Your task to perform on an android device: Open notification settings Image 0: 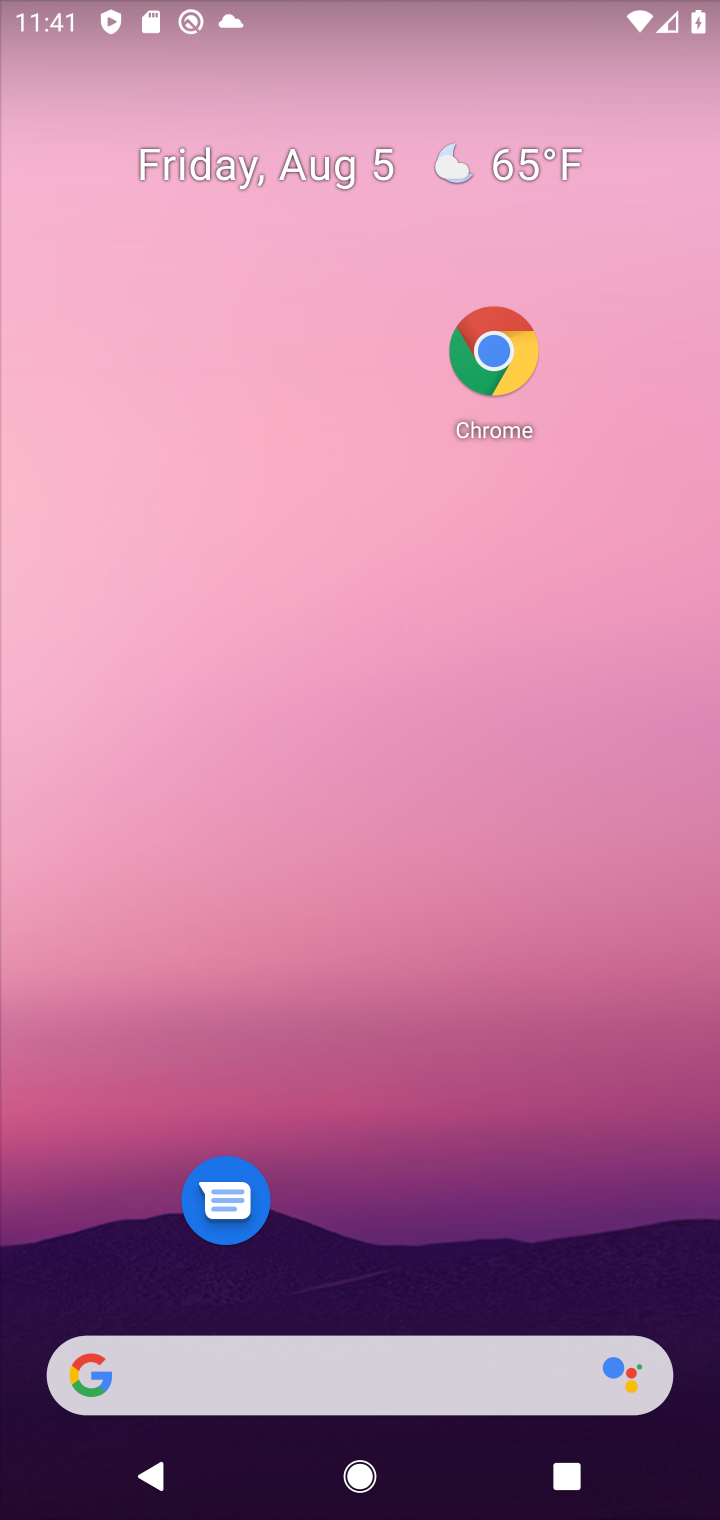
Step 0: drag from (460, 1422) to (423, 294)
Your task to perform on an android device: Open notification settings Image 1: 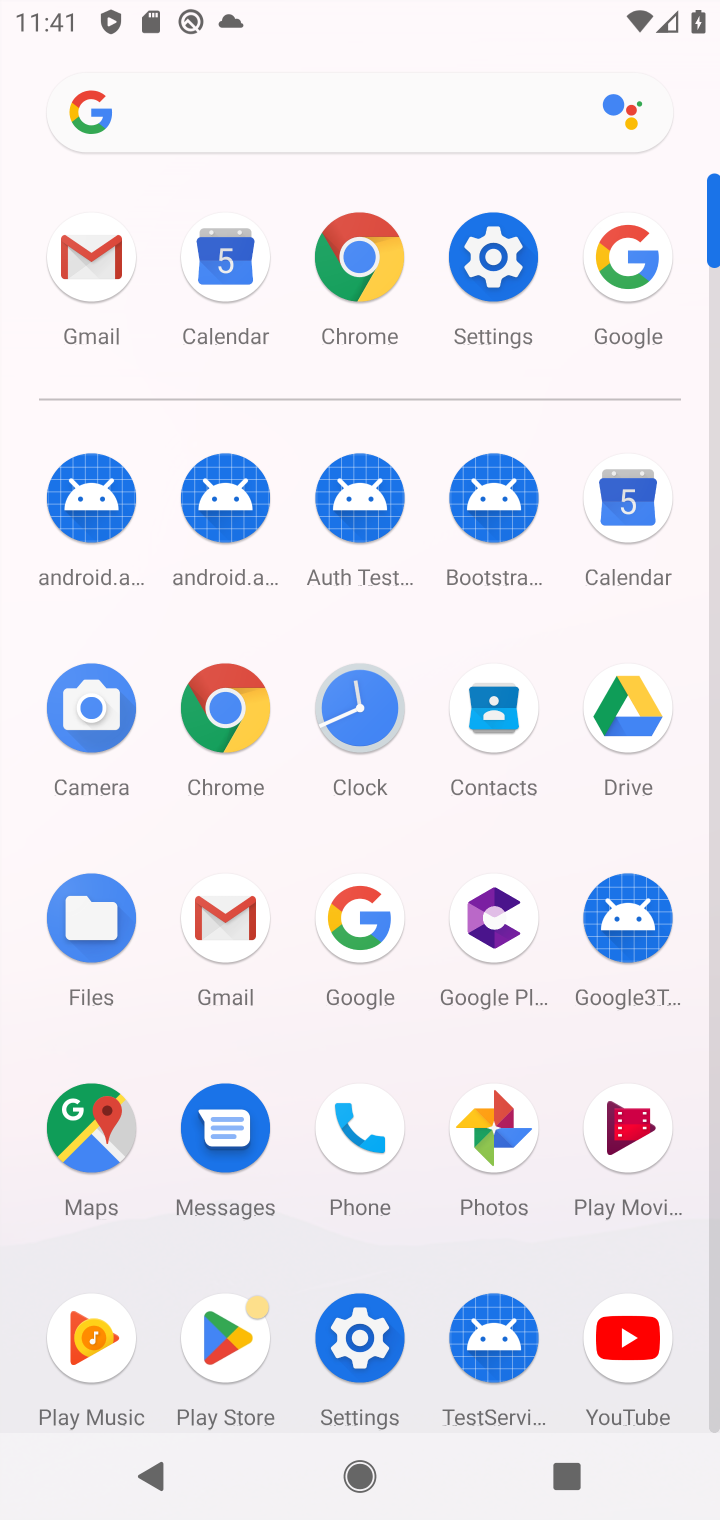
Step 1: click (489, 289)
Your task to perform on an android device: Open notification settings Image 2: 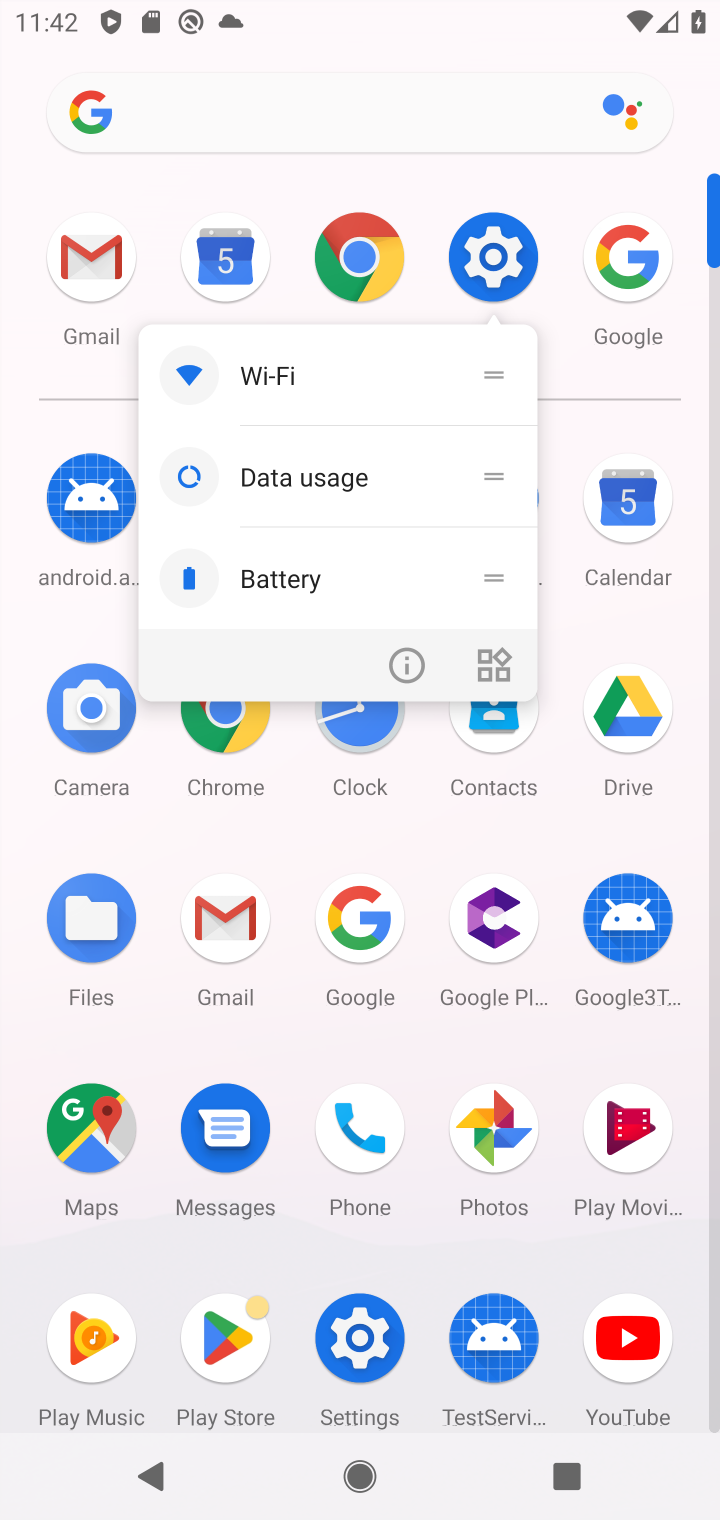
Step 2: click (505, 254)
Your task to perform on an android device: Open notification settings Image 3: 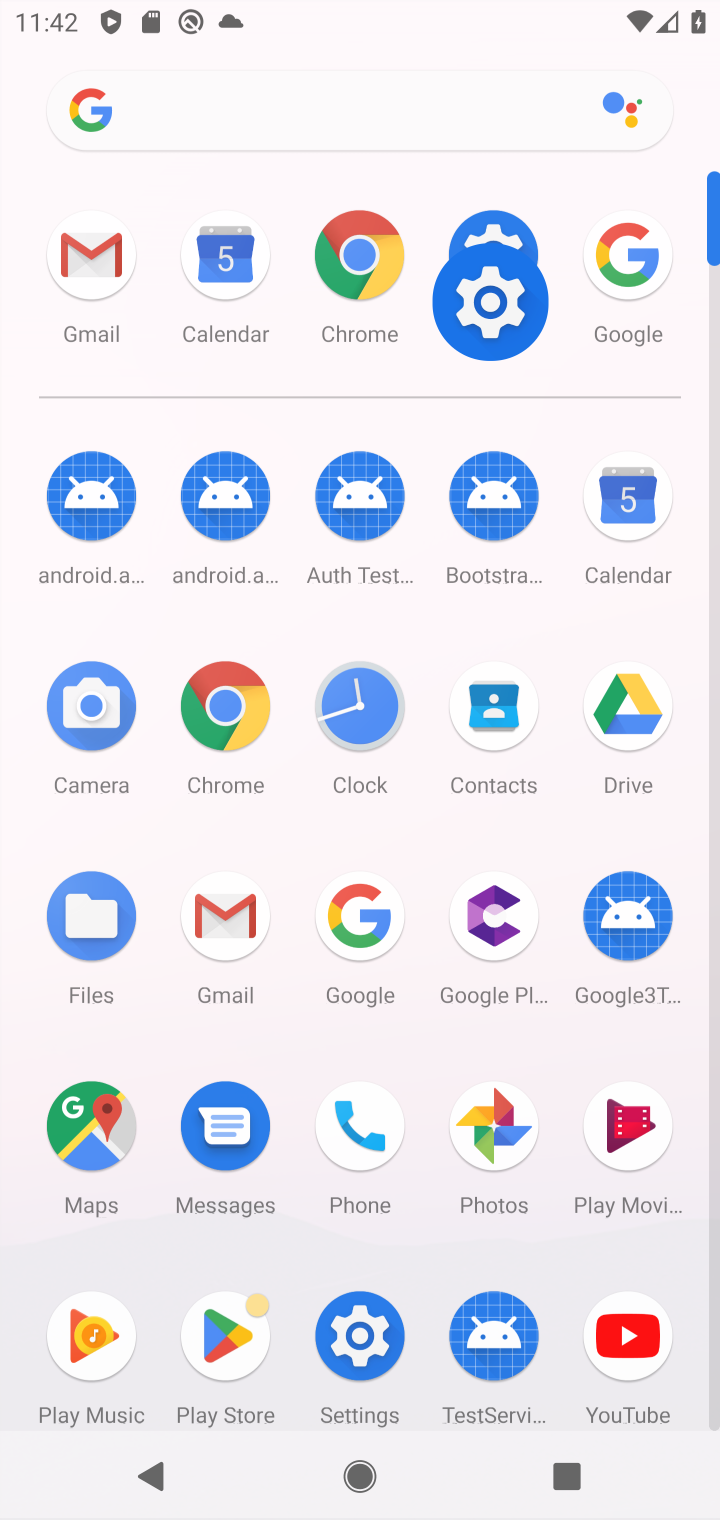
Step 3: click (505, 254)
Your task to perform on an android device: Open notification settings Image 4: 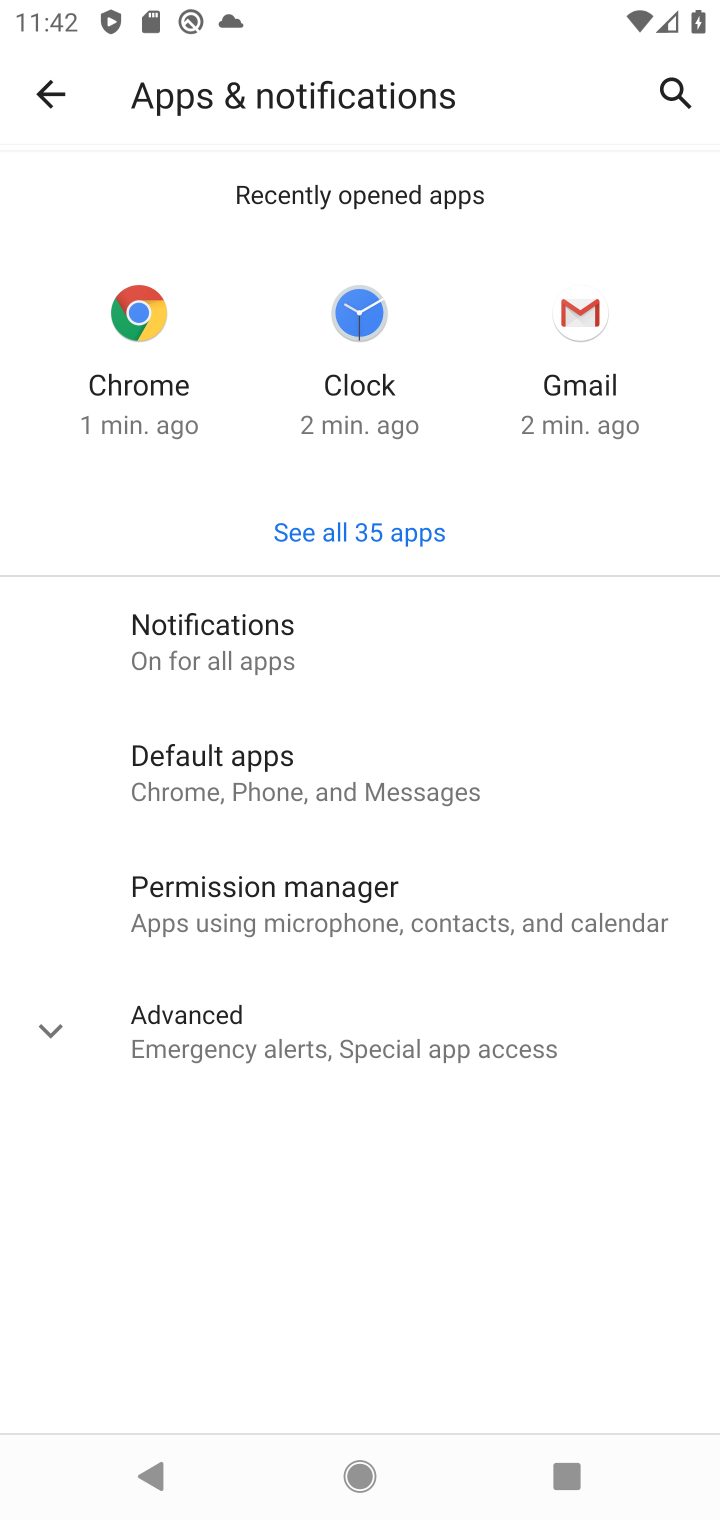
Step 4: click (305, 611)
Your task to perform on an android device: Open notification settings Image 5: 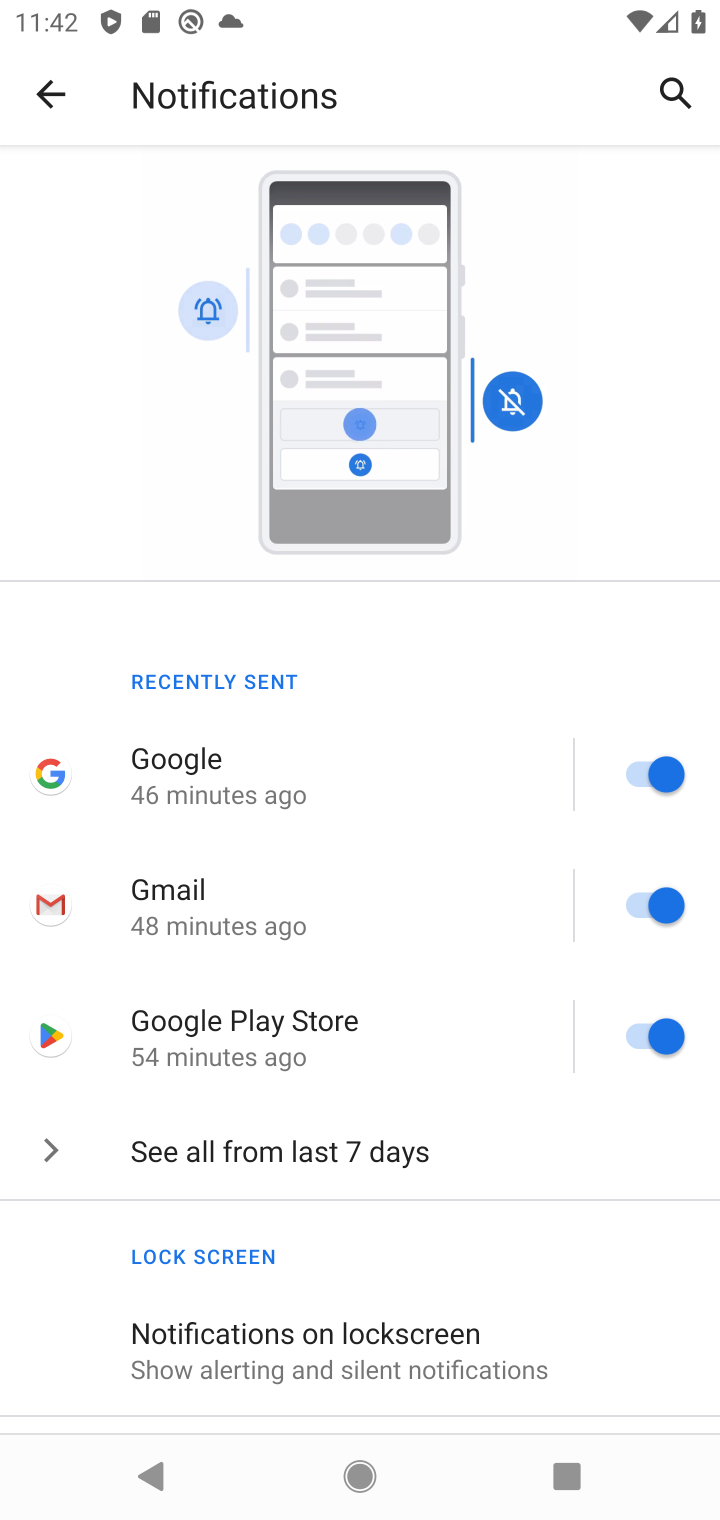
Step 5: task complete